Your task to perform on an android device: set the timer Image 0: 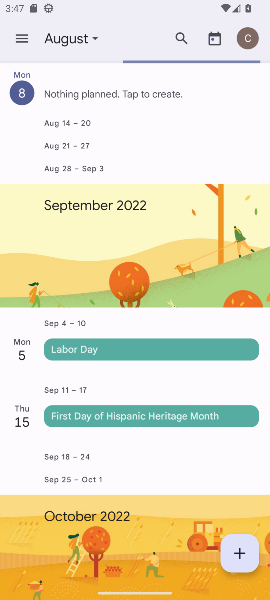
Step 0: drag from (169, 402) to (154, 102)
Your task to perform on an android device: set the timer Image 1: 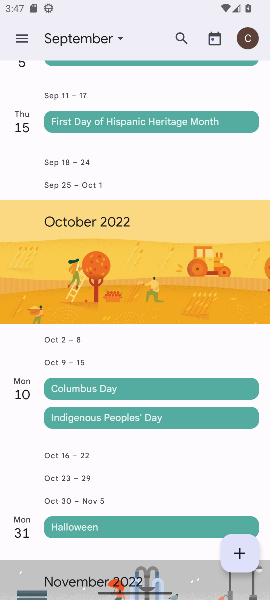
Step 1: press back button
Your task to perform on an android device: set the timer Image 2: 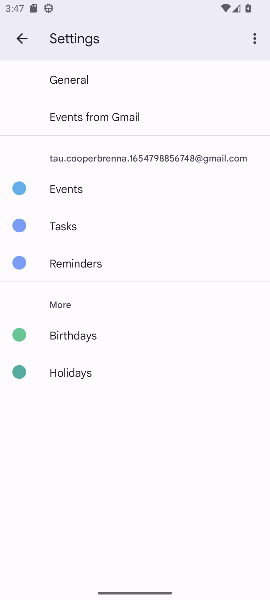
Step 2: click (24, 46)
Your task to perform on an android device: set the timer Image 3: 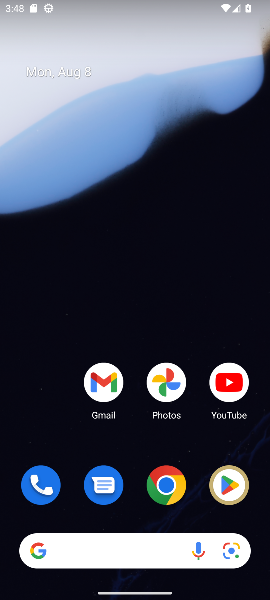
Step 3: drag from (133, 499) to (50, 157)
Your task to perform on an android device: set the timer Image 4: 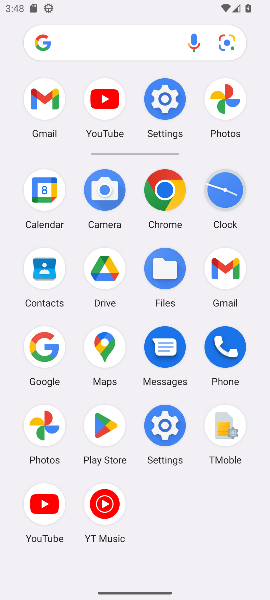
Step 4: click (227, 200)
Your task to perform on an android device: set the timer Image 5: 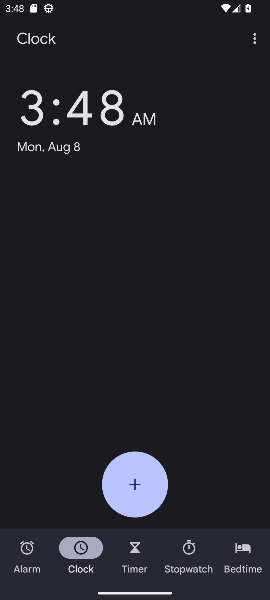
Step 5: press back button
Your task to perform on an android device: set the timer Image 6: 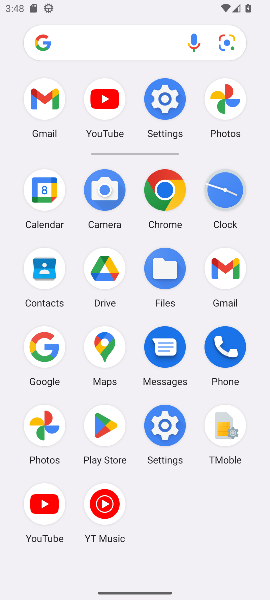
Step 6: click (223, 187)
Your task to perform on an android device: set the timer Image 7: 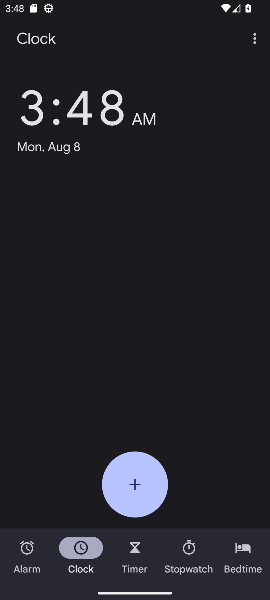
Step 7: press back button
Your task to perform on an android device: set the timer Image 8: 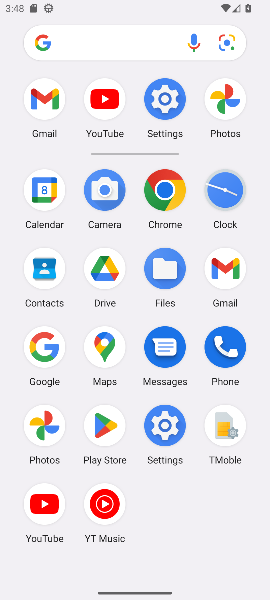
Step 8: click (215, 193)
Your task to perform on an android device: set the timer Image 9: 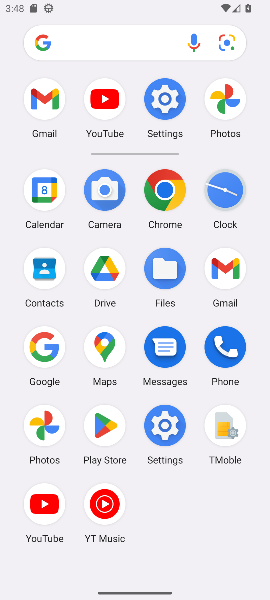
Step 9: click (215, 193)
Your task to perform on an android device: set the timer Image 10: 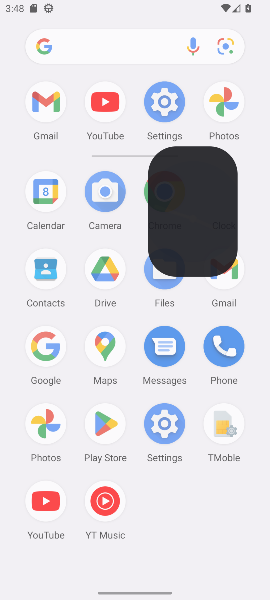
Step 10: click (215, 193)
Your task to perform on an android device: set the timer Image 11: 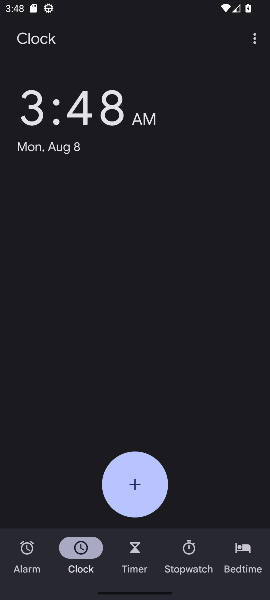
Step 11: click (215, 194)
Your task to perform on an android device: set the timer Image 12: 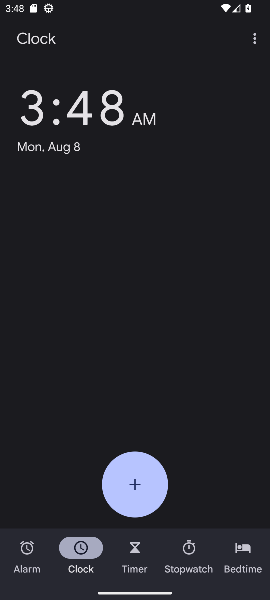
Step 12: click (250, 39)
Your task to perform on an android device: set the timer Image 13: 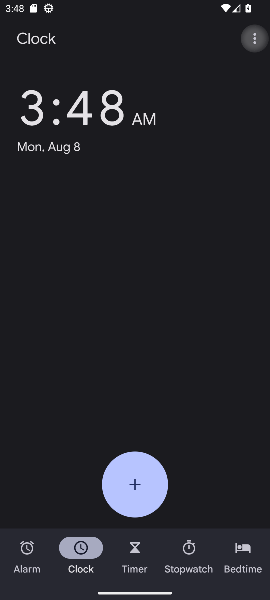
Step 13: click (250, 39)
Your task to perform on an android device: set the timer Image 14: 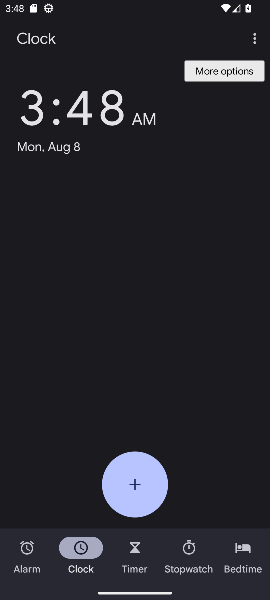
Step 14: click (136, 559)
Your task to perform on an android device: set the timer Image 15: 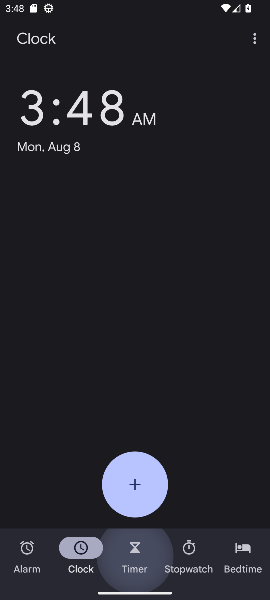
Step 15: click (135, 560)
Your task to perform on an android device: set the timer Image 16: 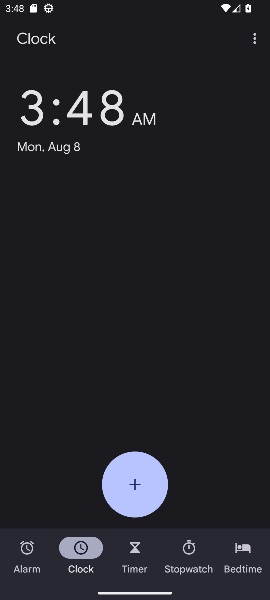
Step 16: click (133, 560)
Your task to perform on an android device: set the timer Image 17: 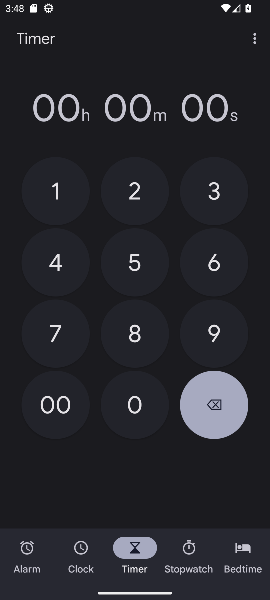
Step 17: click (129, 263)
Your task to perform on an android device: set the timer Image 18: 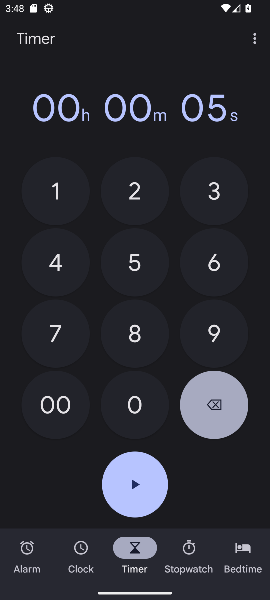
Step 18: click (137, 491)
Your task to perform on an android device: set the timer Image 19: 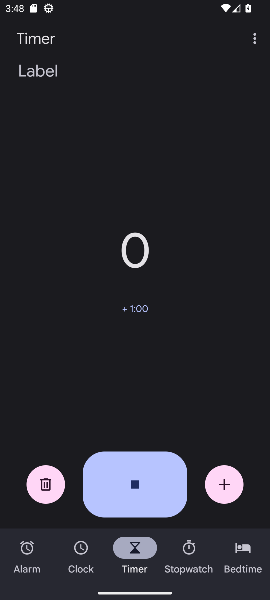
Step 19: click (130, 477)
Your task to perform on an android device: set the timer Image 20: 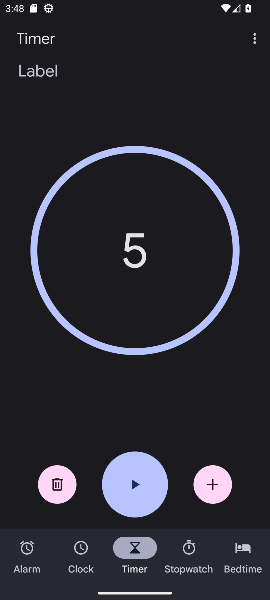
Step 20: click (68, 90)
Your task to perform on an android device: set the timer Image 21: 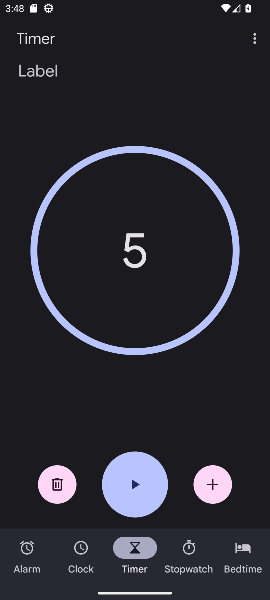
Step 21: task complete